Your task to perform on an android device: Open calendar and show me the first week of next month Image 0: 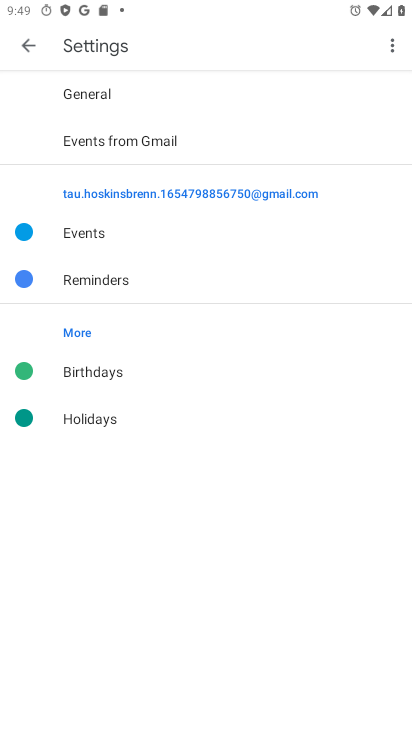
Step 0: press home button
Your task to perform on an android device: Open calendar and show me the first week of next month Image 1: 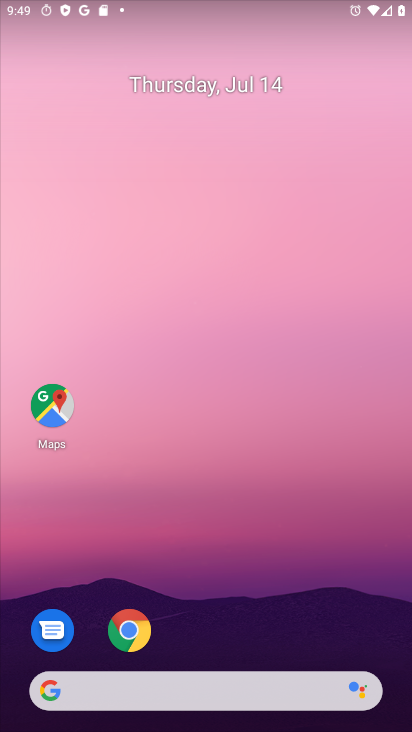
Step 1: drag from (16, 711) to (273, 30)
Your task to perform on an android device: Open calendar and show me the first week of next month Image 2: 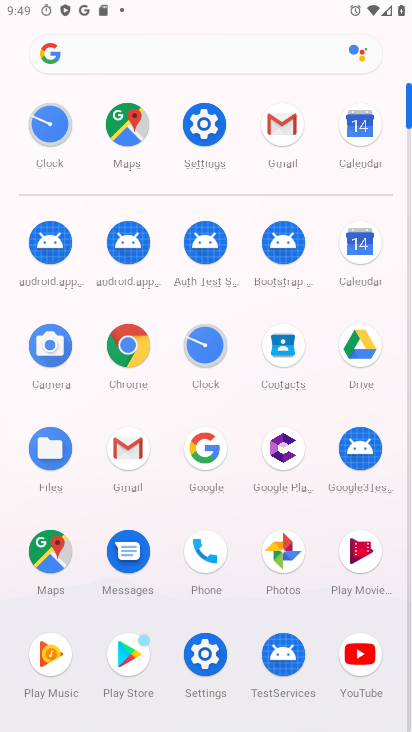
Step 2: click (357, 252)
Your task to perform on an android device: Open calendar and show me the first week of next month Image 3: 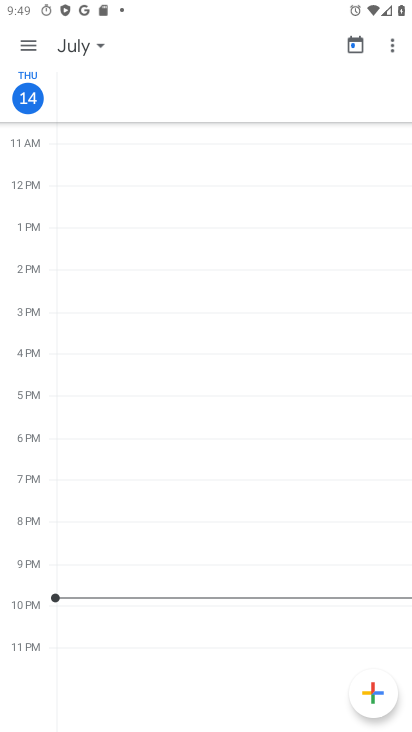
Step 3: click (81, 45)
Your task to perform on an android device: Open calendar and show me the first week of next month Image 4: 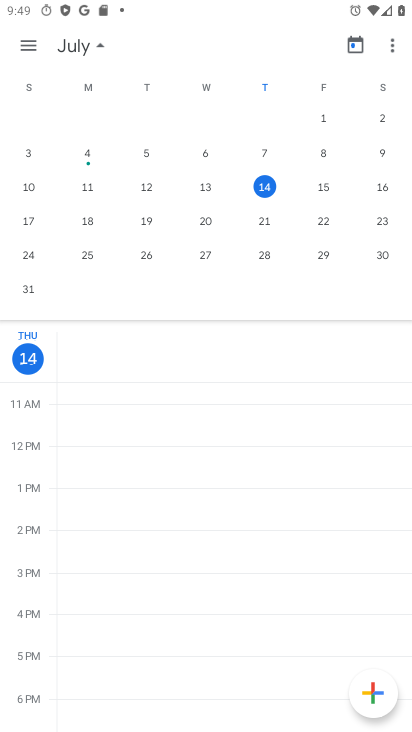
Step 4: drag from (339, 141) to (15, 203)
Your task to perform on an android device: Open calendar and show me the first week of next month Image 5: 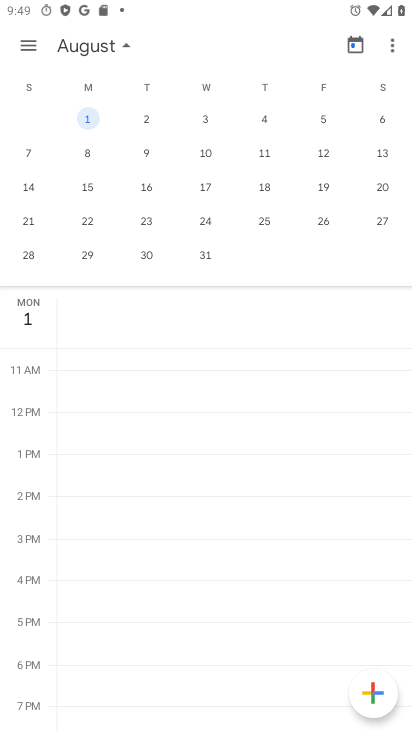
Step 5: click (86, 117)
Your task to perform on an android device: Open calendar and show me the first week of next month Image 6: 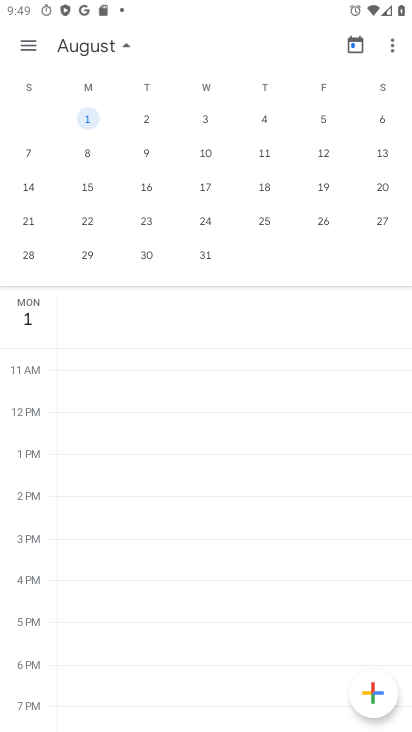
Step 6: task complete